Your task to perform on an android device: Go to wifi settings Image 0: 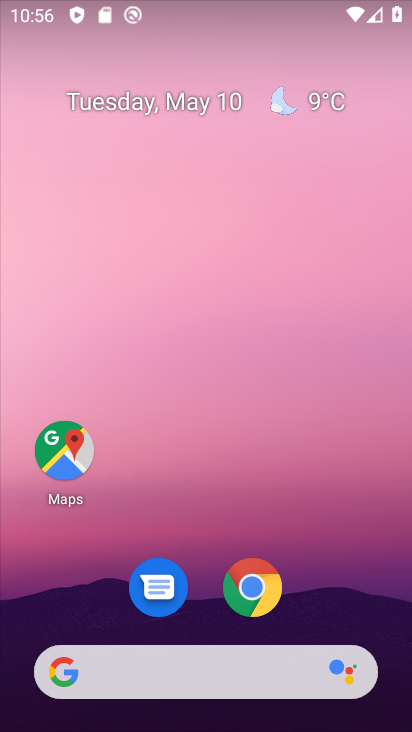
Step 0: drag from (348, 585) to (372, 0)
Your task to perform on an android device: Go to wifi settings Image 1: 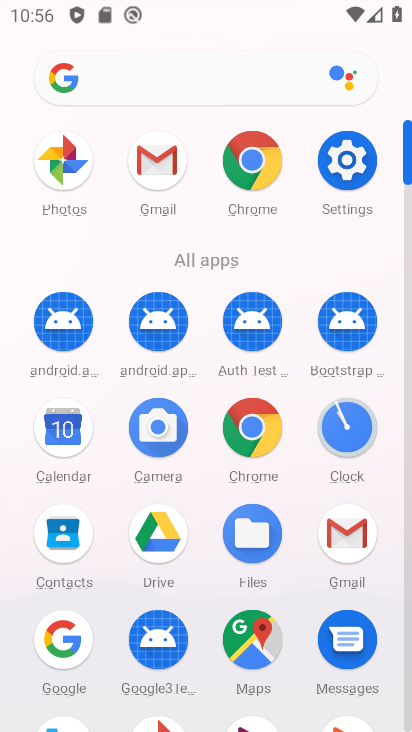
Step 1: click (351, 164)
Your task to perform on an android device: Go to wifi settings Image 2: 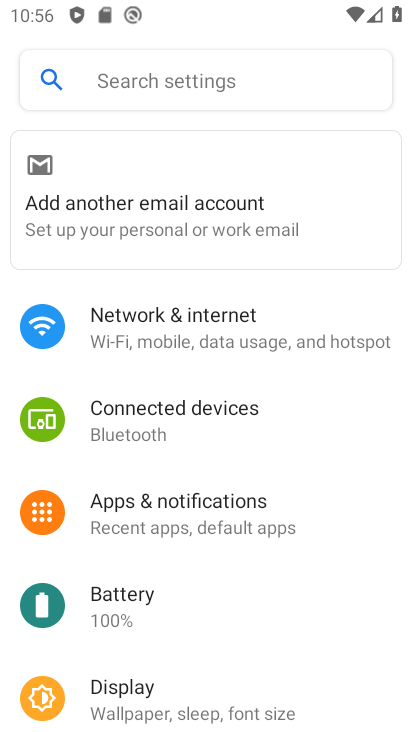
Step 2: click (134, 338)
Your task to perform on an android device: Go to wifi settings Image 3: 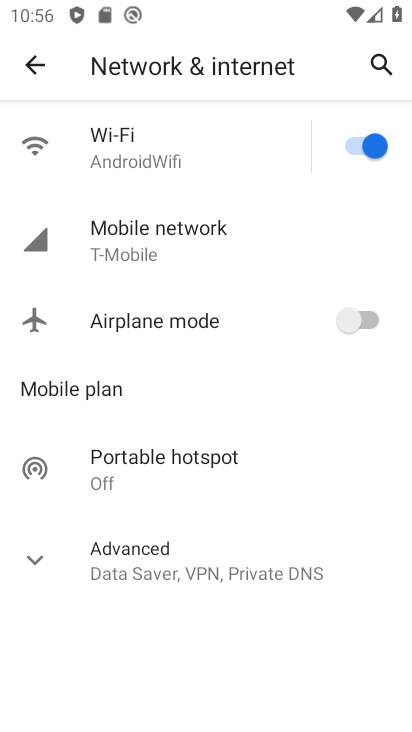
Step 3: click (84, 149)
Your task to perform on an android device: Go to wifi settings Image 4: 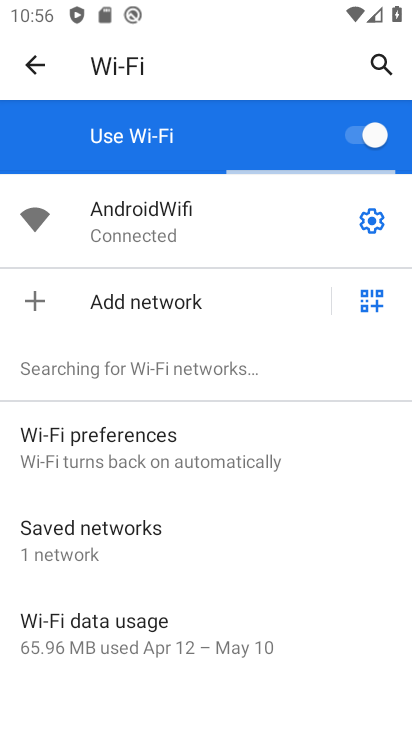
Step 4: task complete